Your task to perform on an android device: open the mobile data screen to see how much data has been used Image 0: 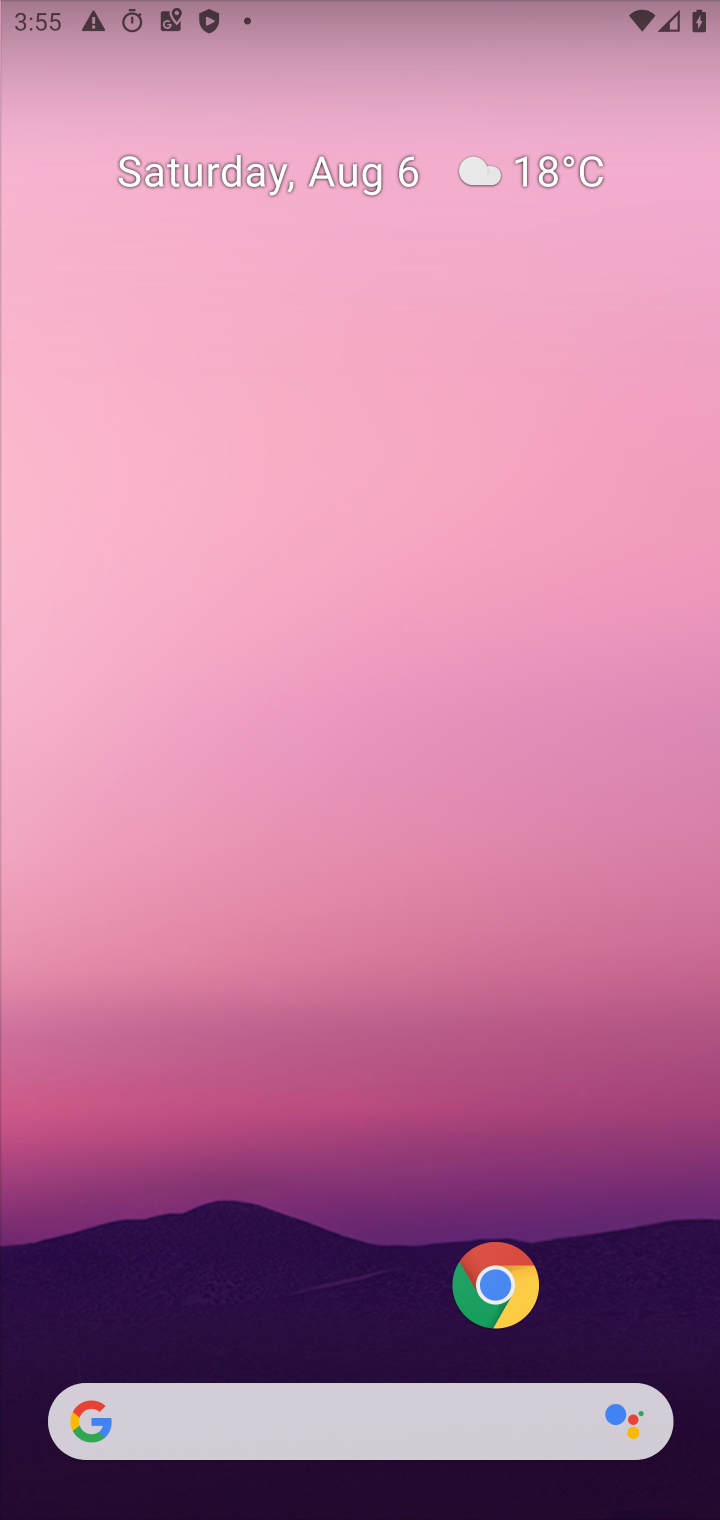
Step 0: press home button
Your task to perform on an android device: open the mobile data screen to see how much data has been used Image 1: 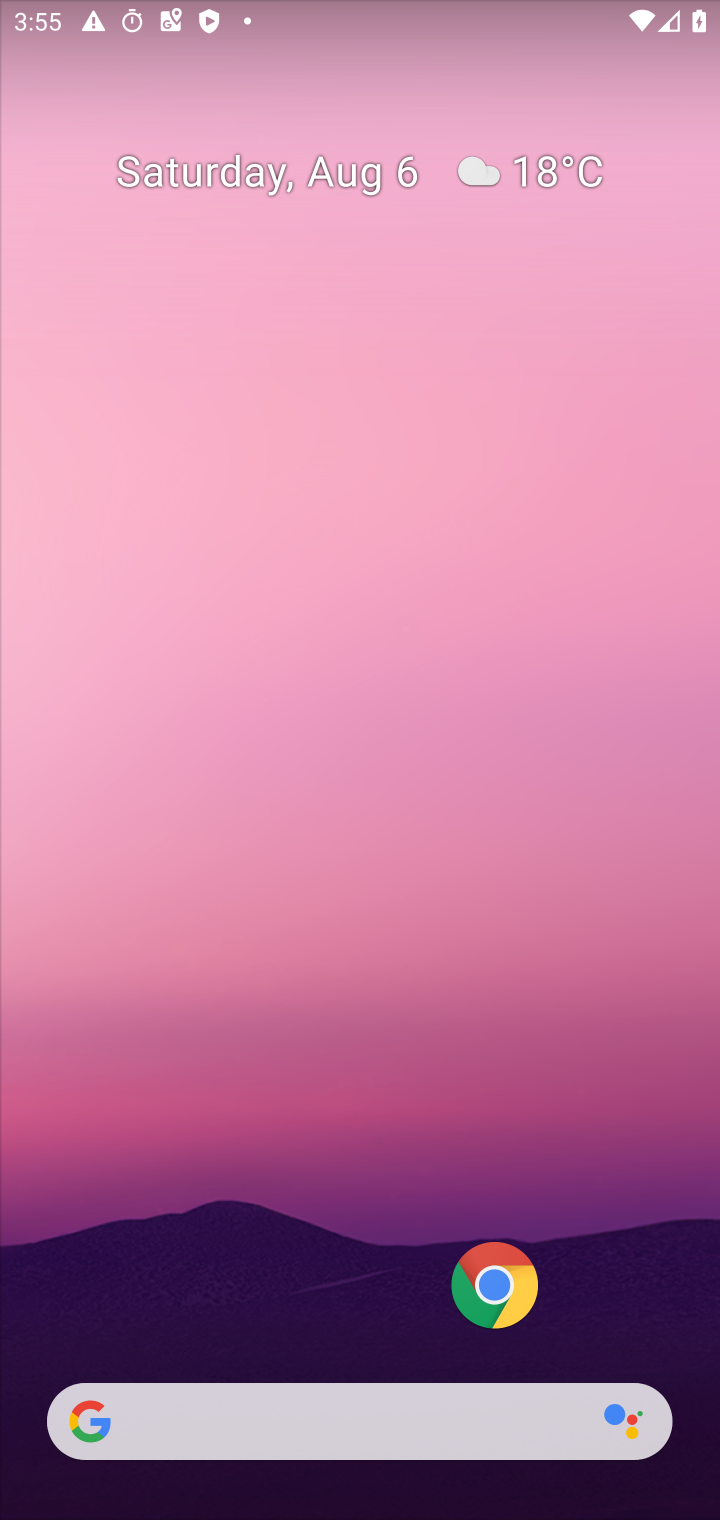
Step 1: drag from (376, 1168) to (360, 11)
Your task to perform on an android device: open the mobile data screen to see how much data has been used Image 2: 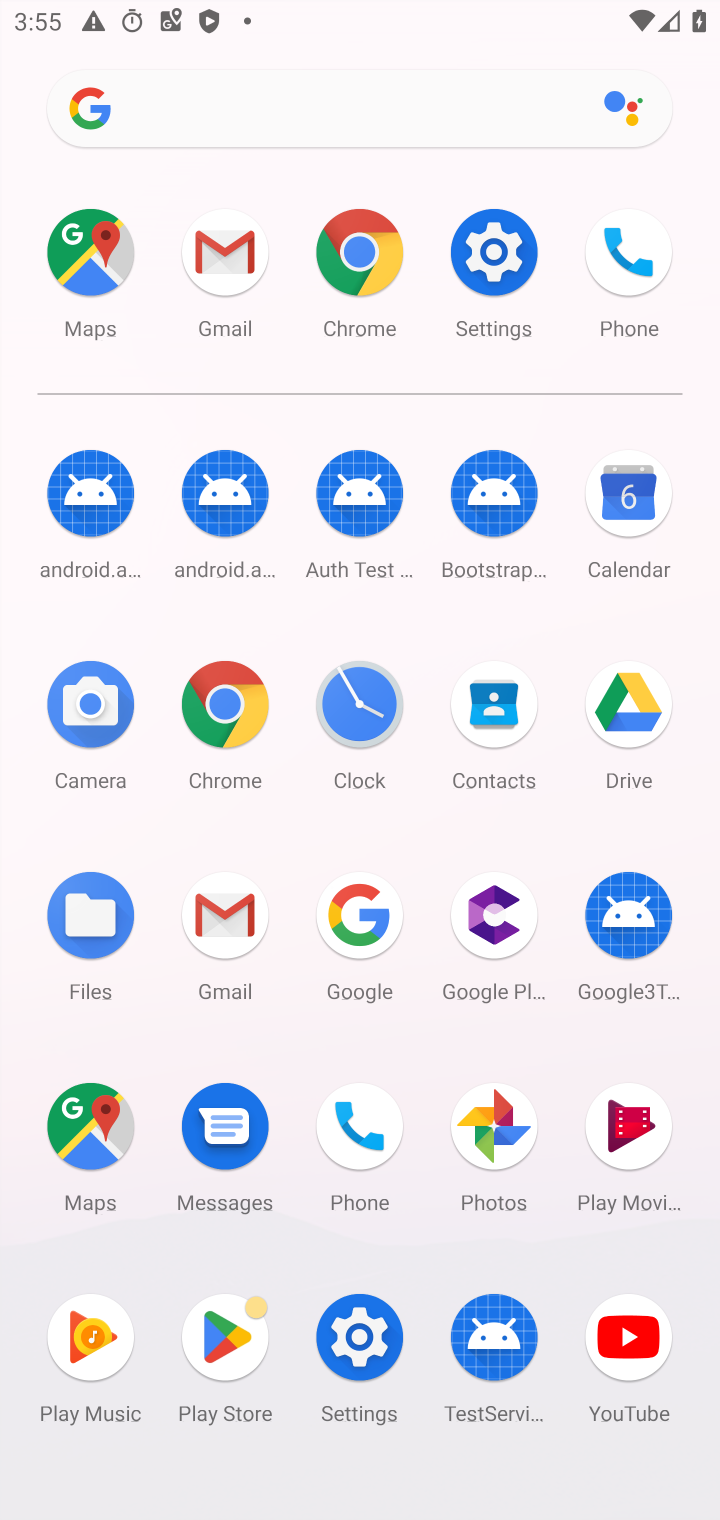
Step 2: click (491, 244)
Your task to perform on an android device: open the mobile data screen to see how much data has been used Image 3: 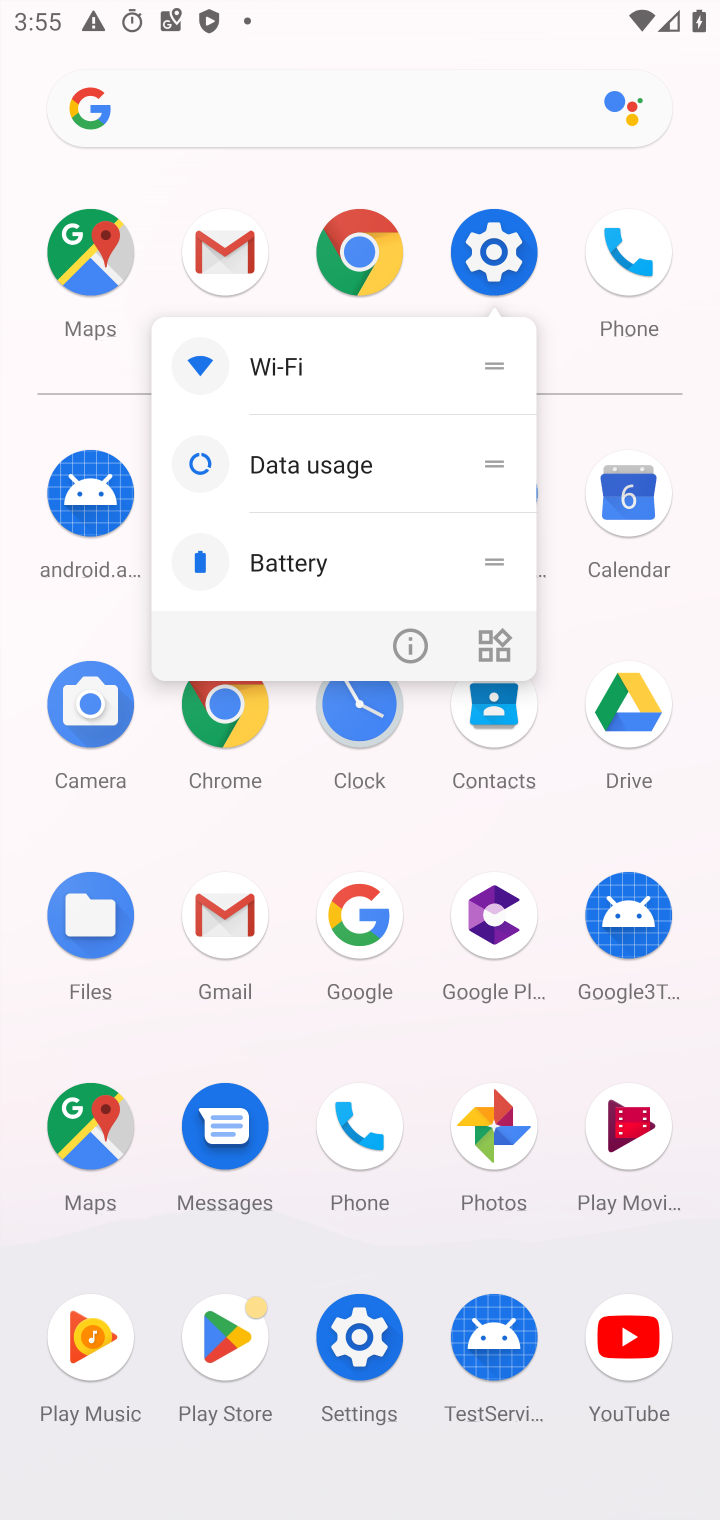
Step 3: click (491, 244)
Your task to perform on an android device: open the mobile data screen to see how much data has been used Image 4: 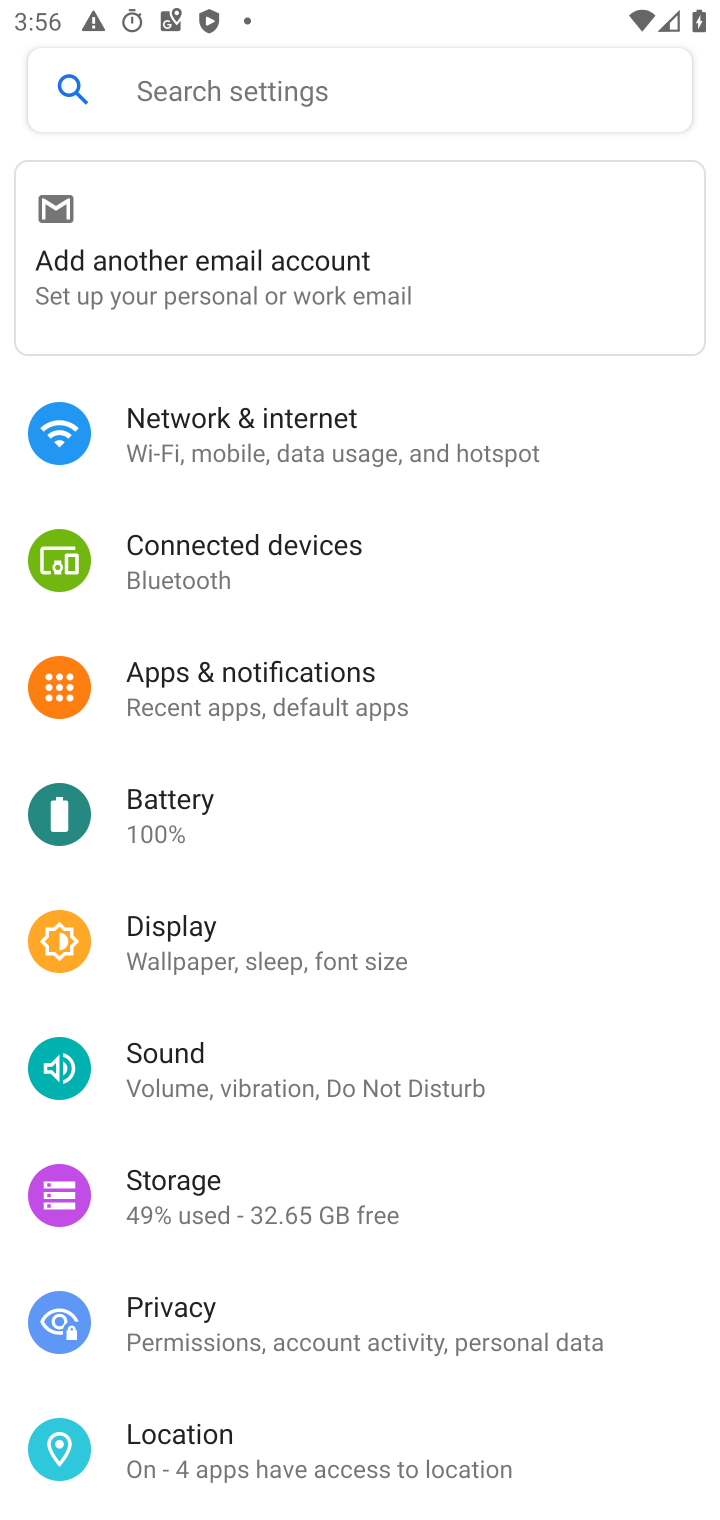
Step 4: click (328, 428)
Your task to perform on an android device: open the mobile data screen to see how much data has been used Image 5: 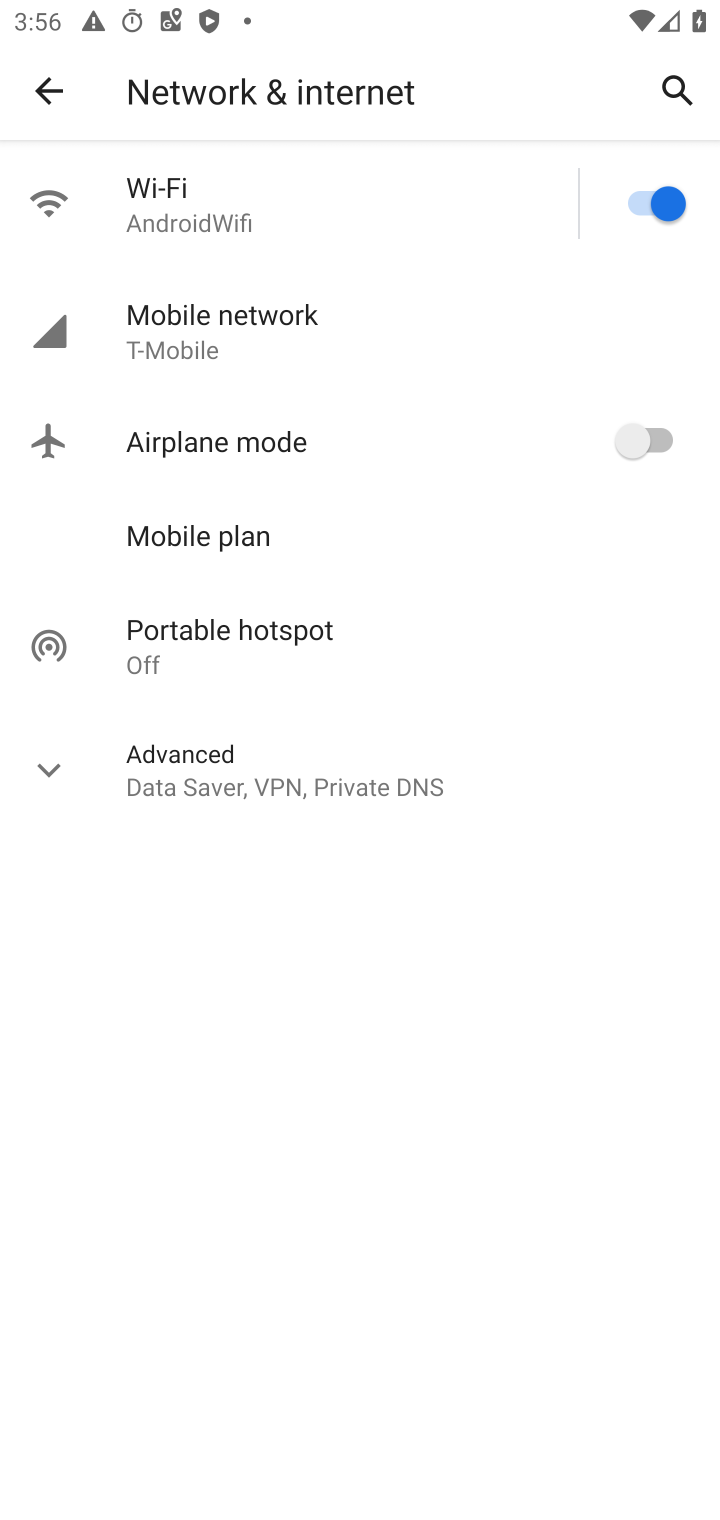
Step 5: click (230, 338)
Your task to perform on an android device: open the mobile data screen to see how much data has been used Image 6: 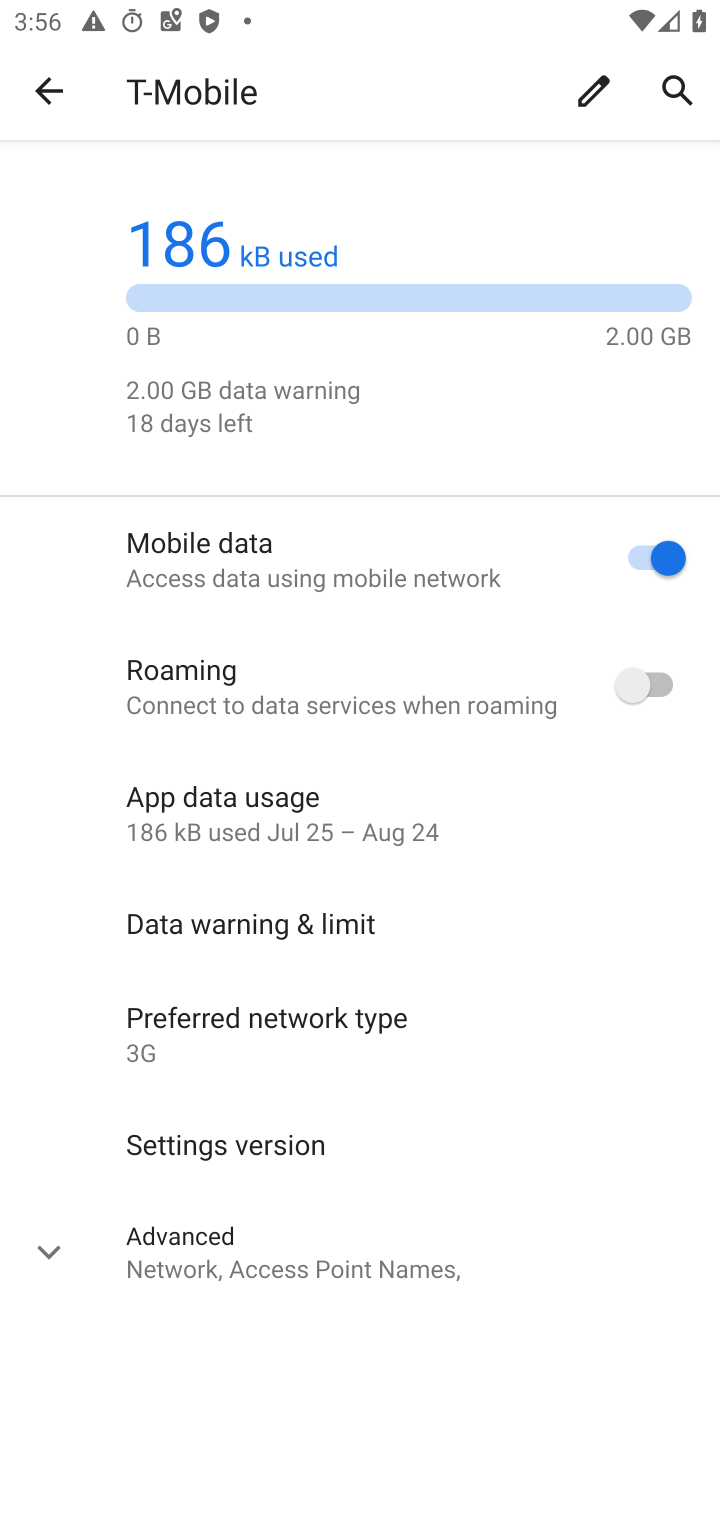
Step 6: click (37, 1235)
Your task to perform on an android device: open the mobile data screen to see how much data has been used Image 7: 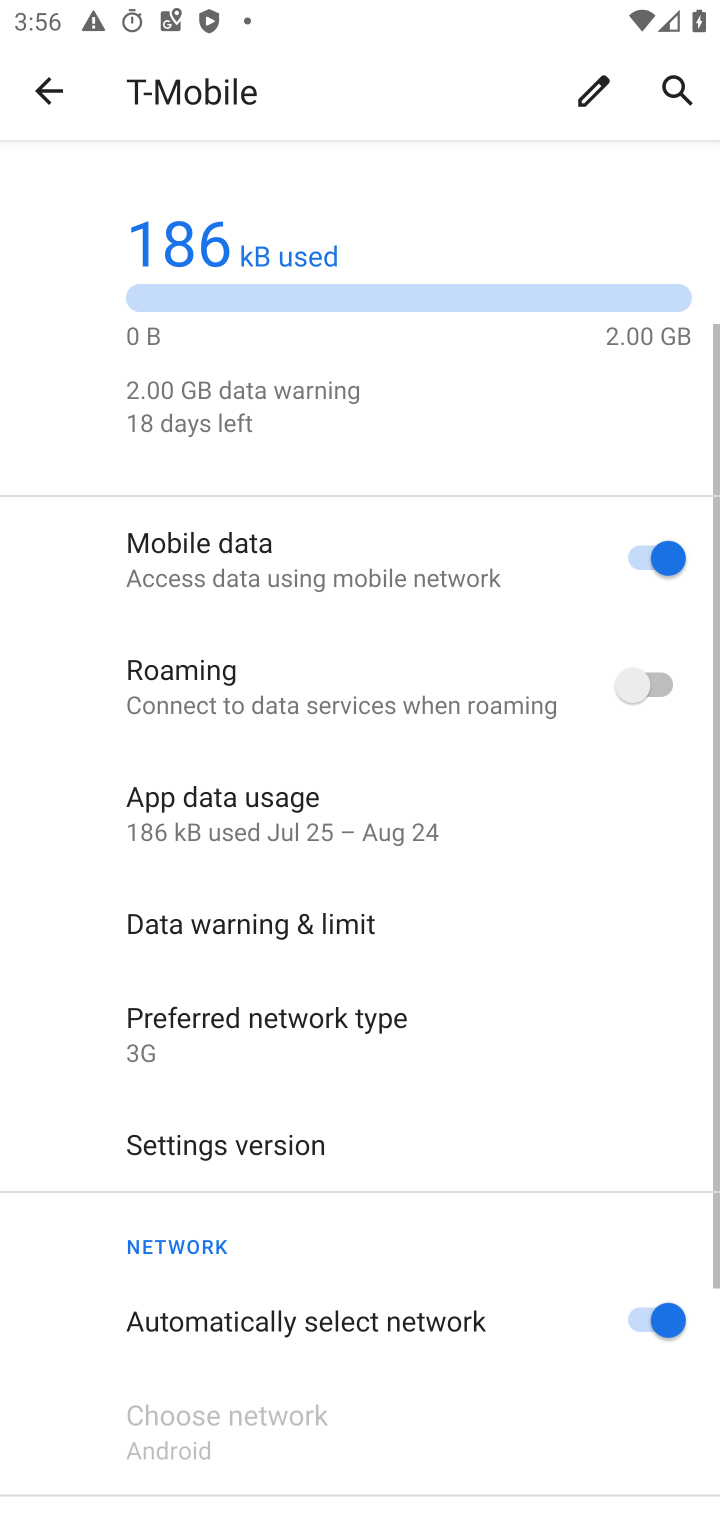
Step 7: click (261, 799)
Your task to perform on an android device: open the mobile data screen to see how much data has been used Image 8: 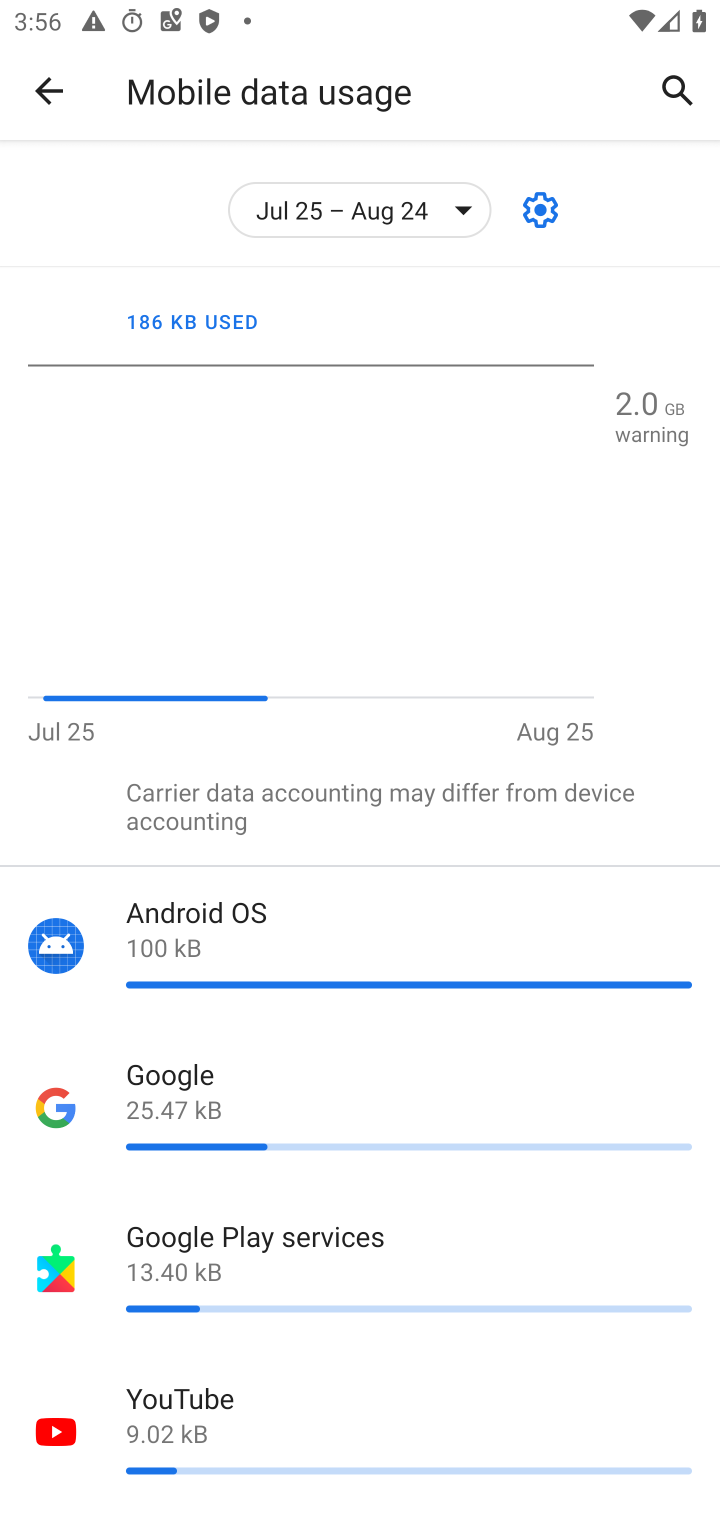
Step 8: task complete